Your task to perform on an android device: Open Chrome and go to the settings page Image 0: 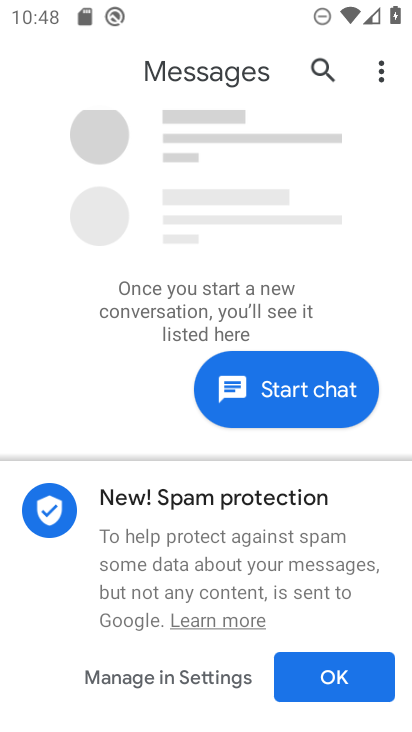
Step 0: press home button
Your task to perform on an android device: Open Chrome and go to the settings page Image 1: 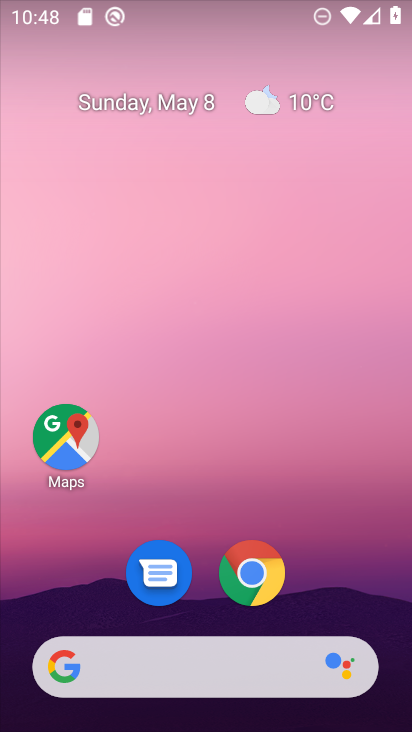
Step 1: click (308, 585)
Your task to perform on an android device: Open Chrome and go to the settings page Image 2: 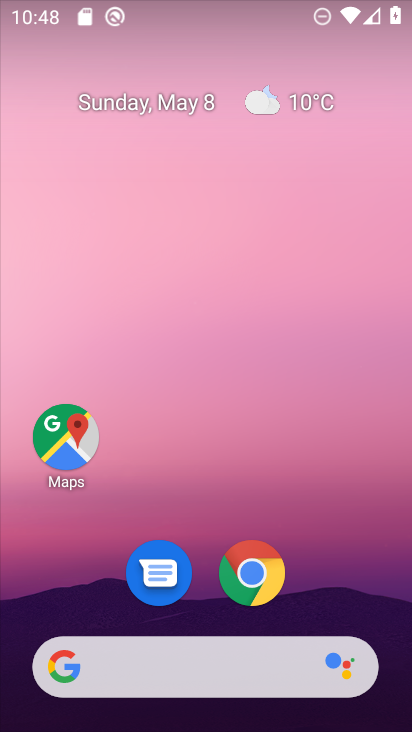
Step 2: click (232, 569)
Your task to perform on an android device: Open Chrome and go to the settings page Image 3: 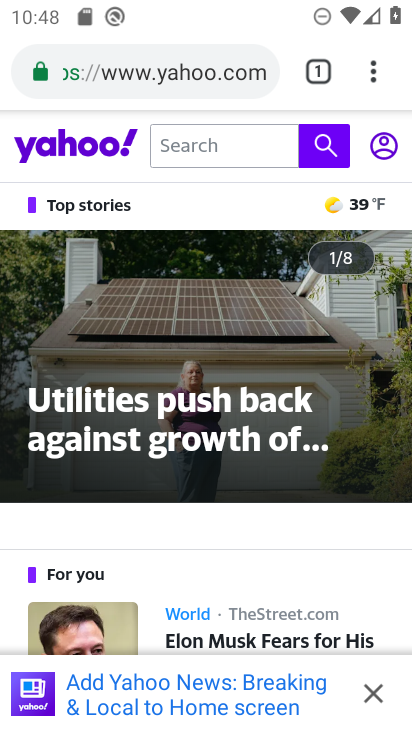
Step 3: task complete